Your task to perform on an android device: Go to ESPN.com Image 0: 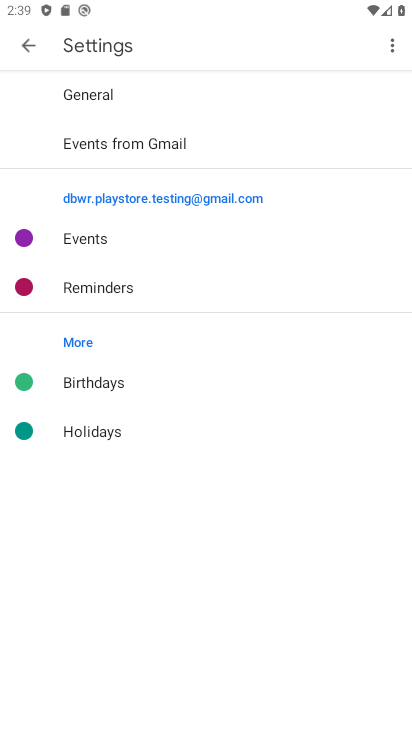
Step 0: press home button
Your task to perform on an android device: Go to ESPN.com Image 1: 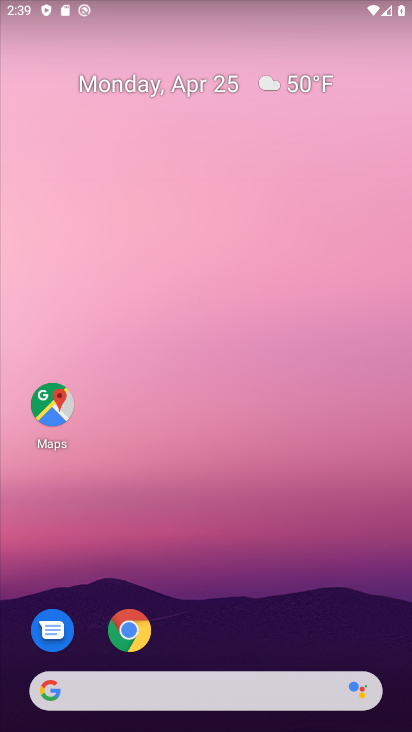
Step 1: click (139, 629)
Your task to perform on an android device: Go to ESPN.com Image 2: 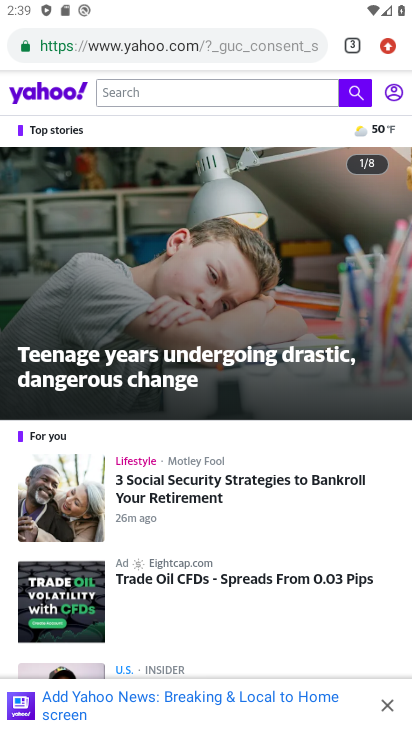
Step 2: click (357, 46)
Your task to perform on an android device: Go to ESPN.com Image 3: 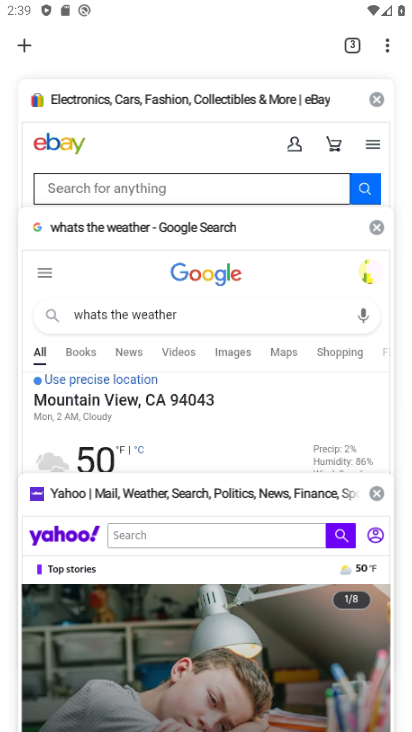
Step 3: click (23, 42)
Your task to perform on an android device: Go to ESPN.com Image 4: 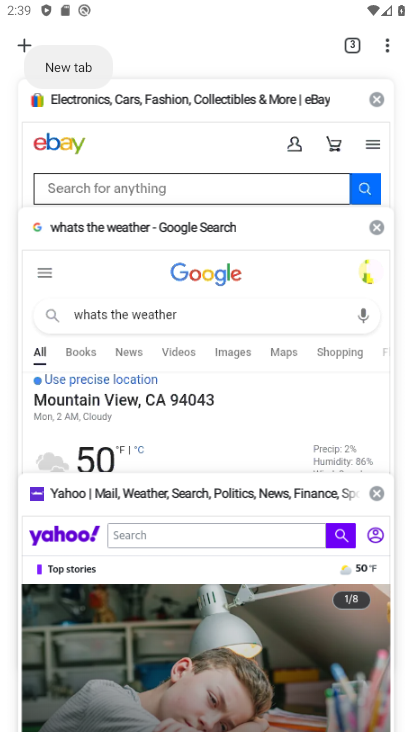
Step 4: click (23, 42)
Your task to perform on an android device: Go to ESPN.com Image 5: 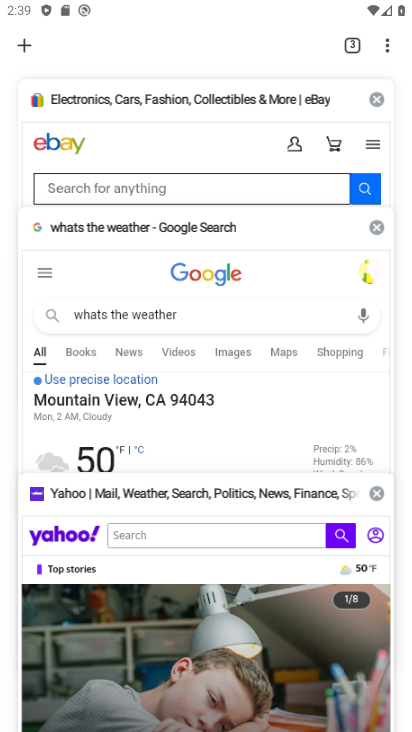
Step 5: click (20, 40)
Your task to perform on an android device: Go to ESPN.com Image 6: 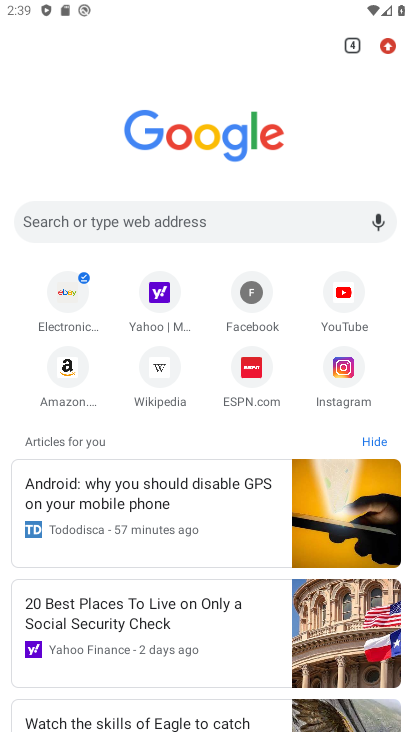
Step 6: click (251, 373)
Your task to perform on an android device: Go to ESPN.com Image 7: 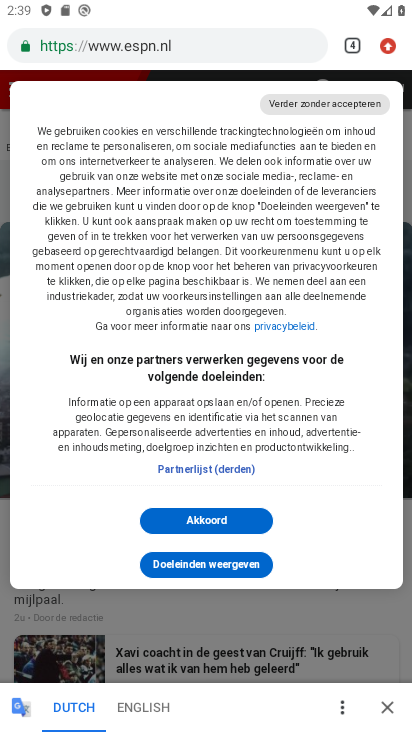
Step 7: task complete